Your task to perform on an android device: allow cookies in the chrome app Image 0: 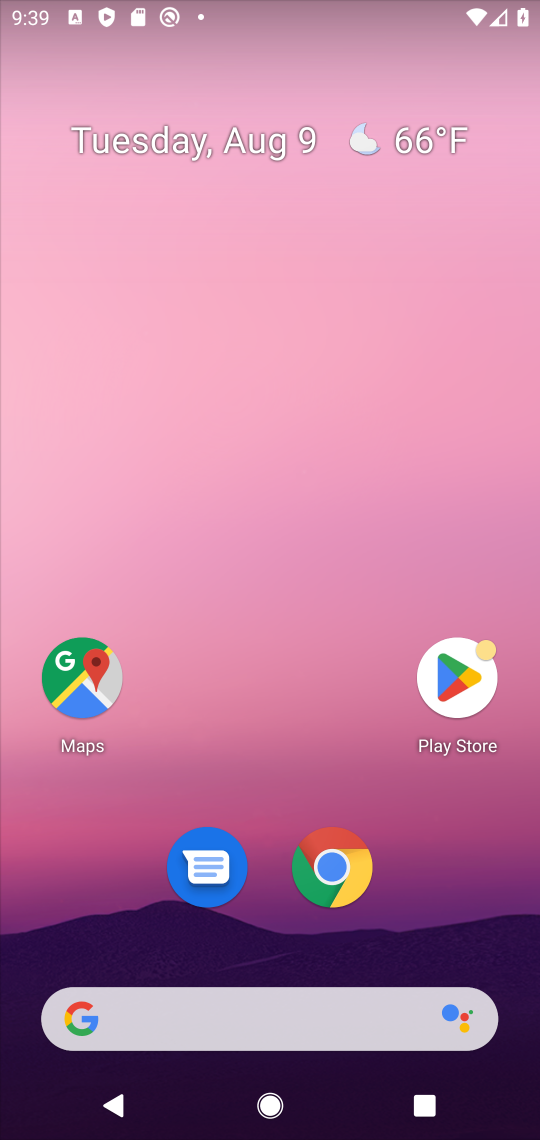
Step 0: click (353, 883)
Your task to perform on an android device: allow cookies in the chrome app Image 1: 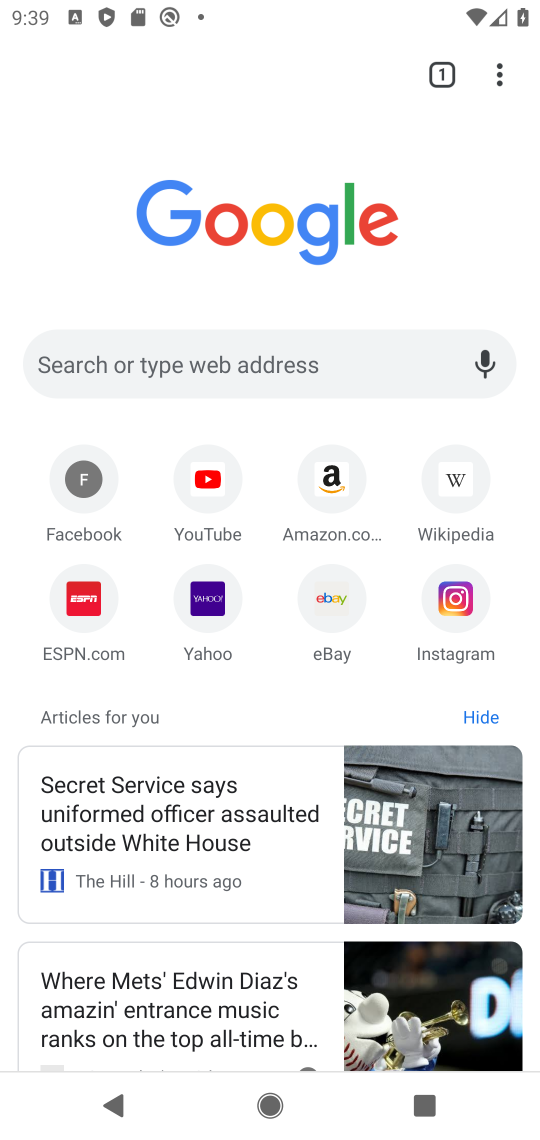
Step 1: click (508, 72)
Your task to perform on an android device: allow cookies in the chrome app Image 2: 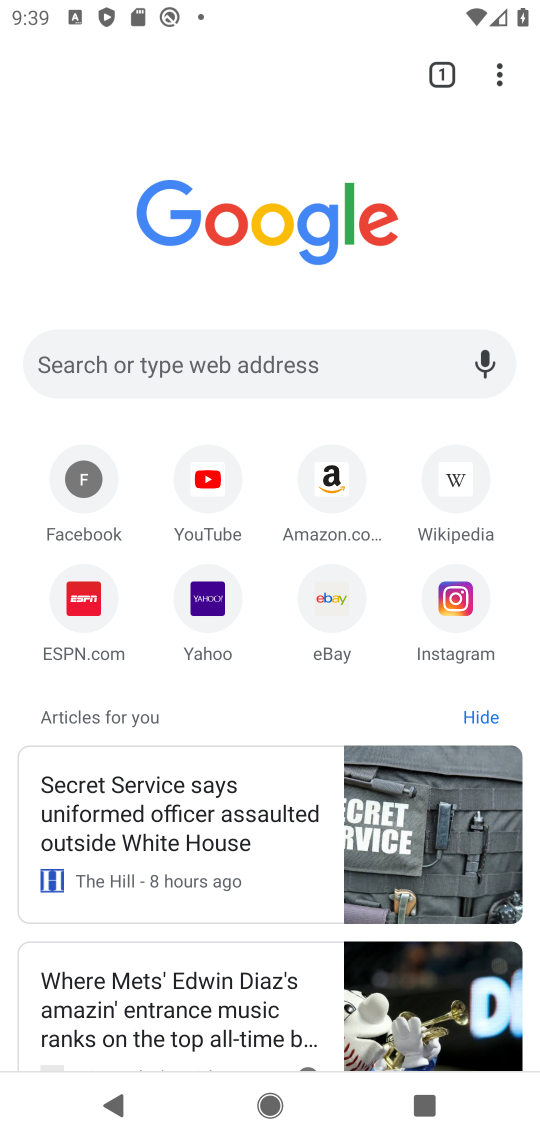
Step 2: click (495, 80)
Your task to perform on an android device: allow cookies in the chrome app Image 3: 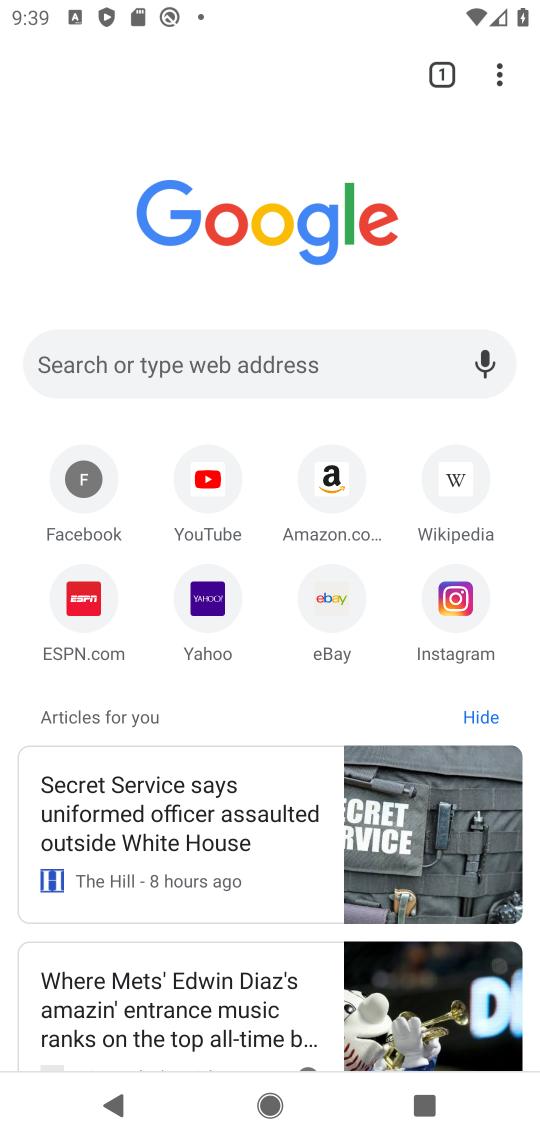
Step 3: click (501, 78)
Your task to perform on an android device: allow cookies in the chrome app Image 4: 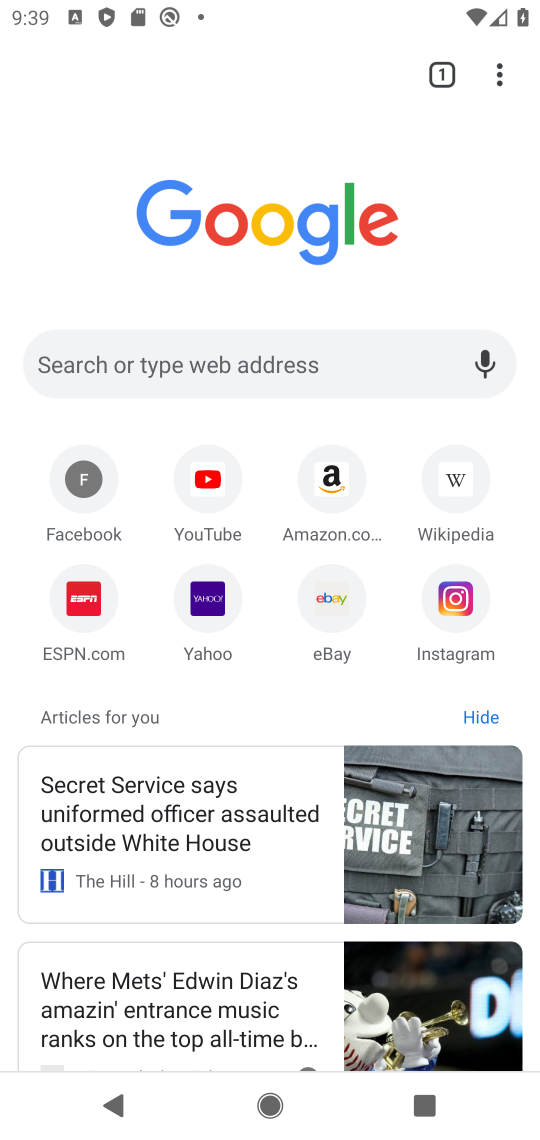
Step 4: click (507, 75)
Your task to perform on an android device: allow cookies in the chrome app Image 5: 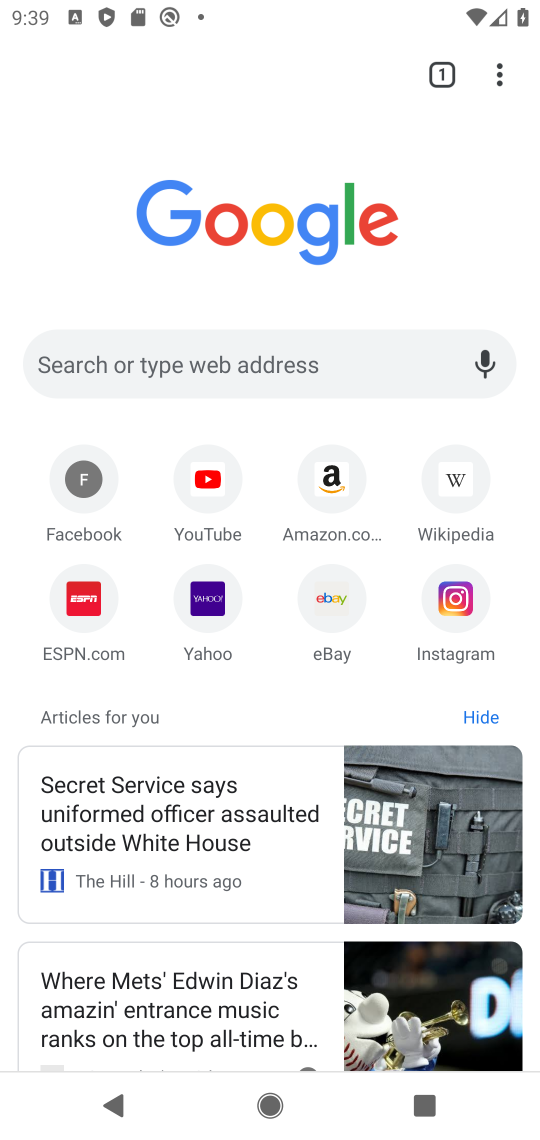
Step 5: click (493, 74)
Your task to perform on an android device: allow cookies in the chrome app Image 6: 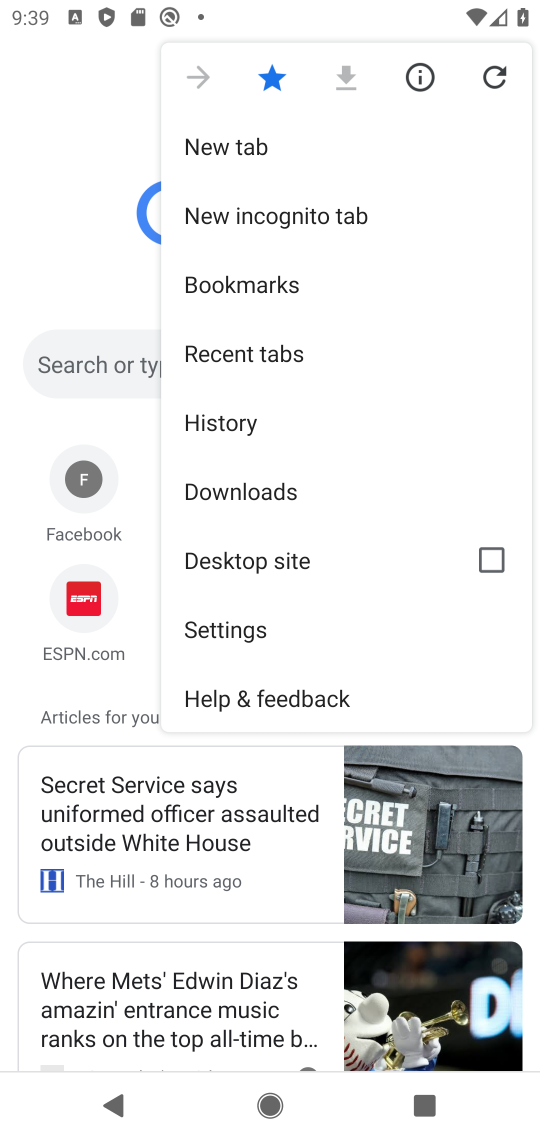
Step 6: click (217, 632)
Your task to perform on an android device: allow cookies in the chrome app Image 7: 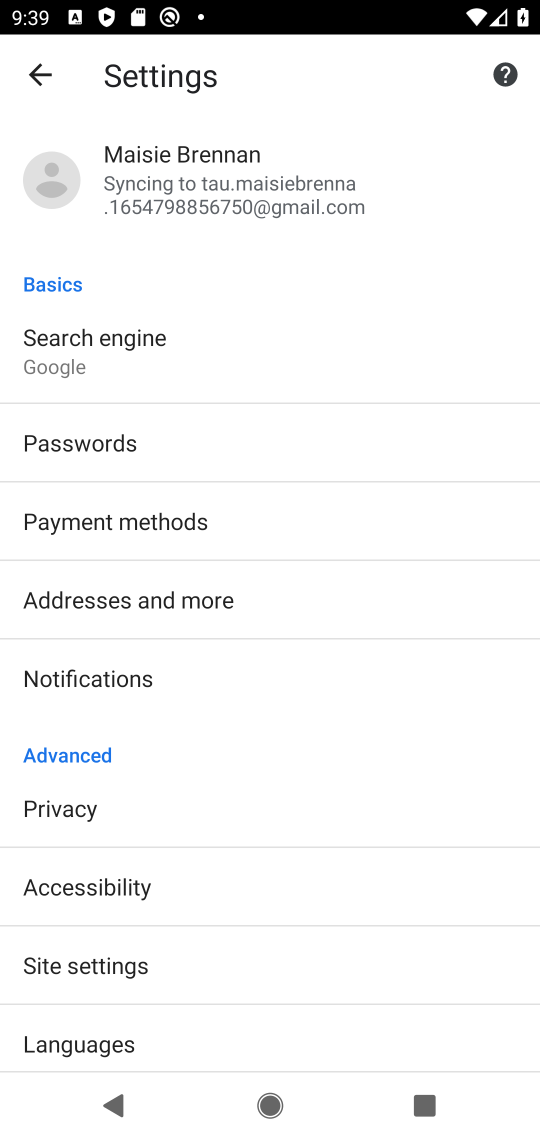
Step 7: drag from (199, 952) to (330, 533)
Your task to perform on an android device: allow cookies in the chrome app Image 8: 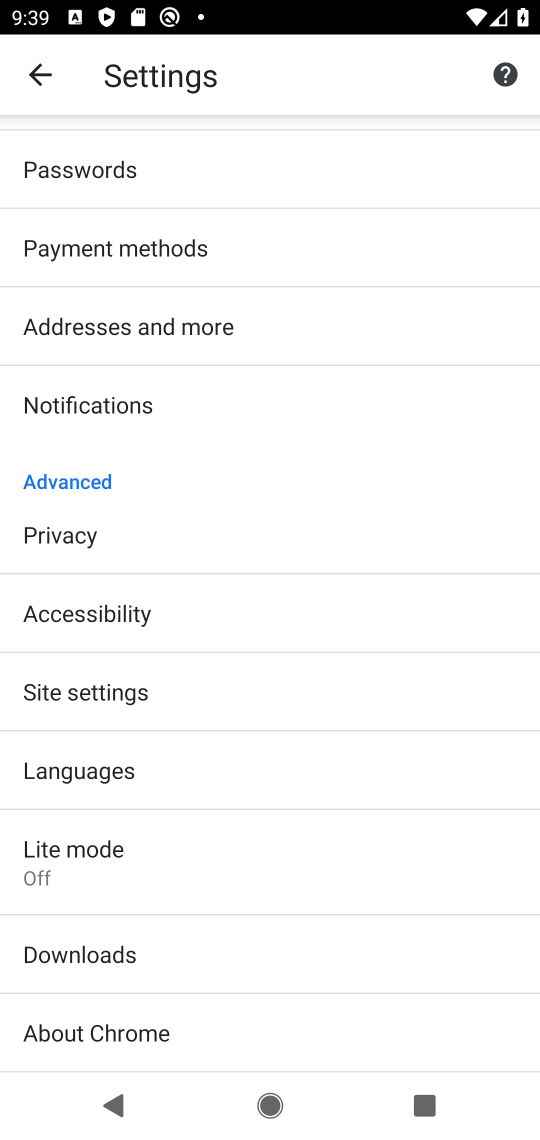
Step 8: click (155, 690)
Your task to perform on an android device: allow cookies in the chrome app Image 9: 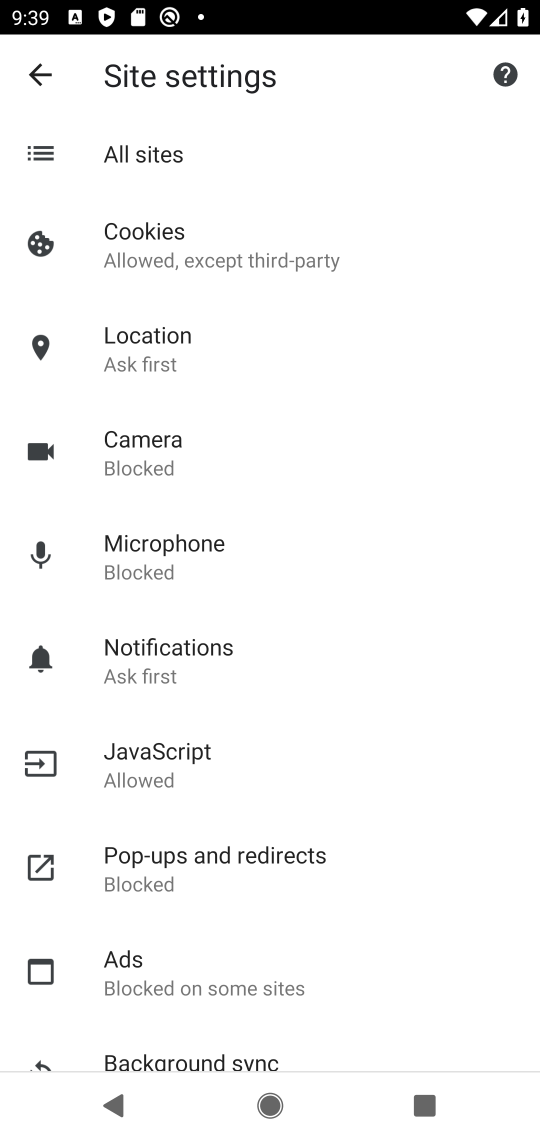
Step 9: click (253, 228)
Your task to perform on an android device: allow cookies in the chrome app Image 10: 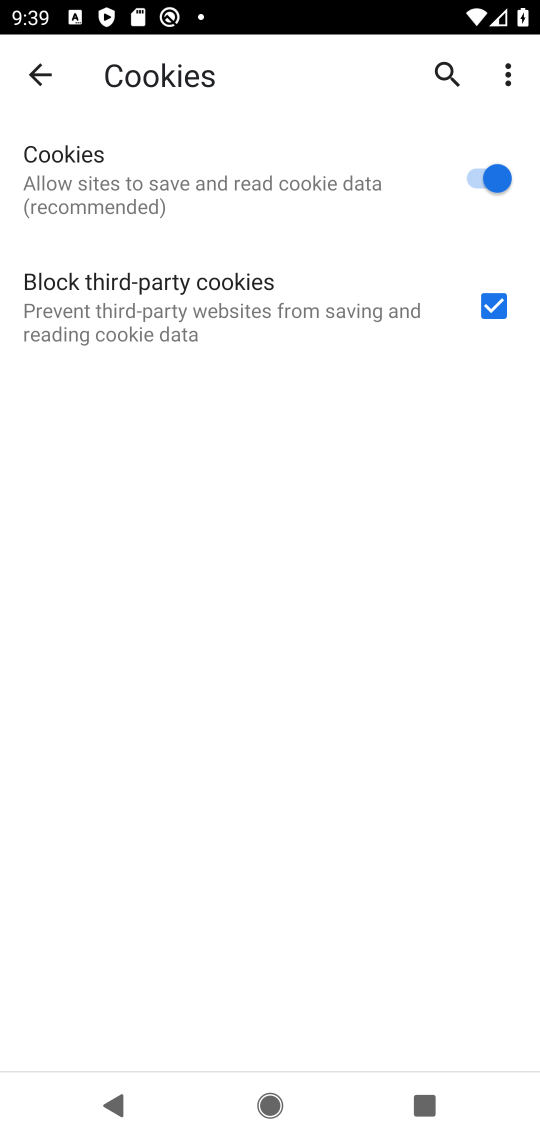
Step 10: task complete